Your task to perform on an android device: turn on location history Image 0: 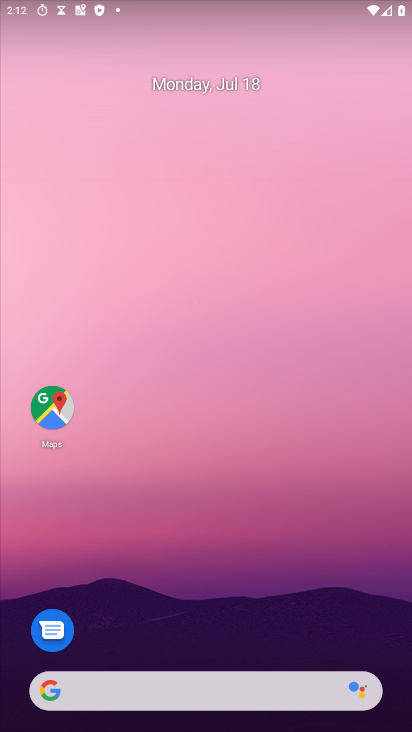
Step 0: drag from (246, 688) to (300, 116)
Your task to perform on an android device: turn on location history Image 1: 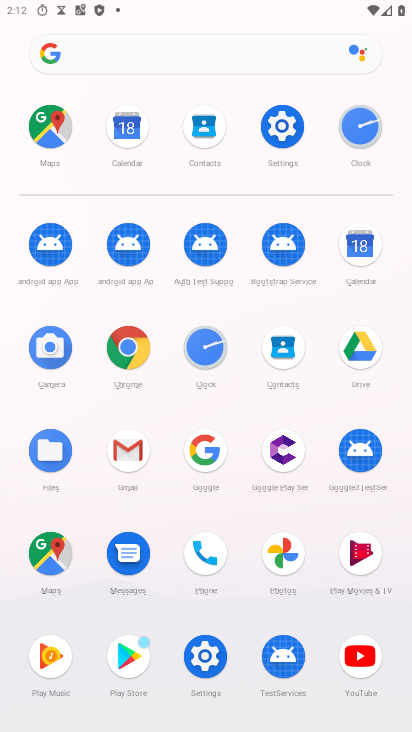
Step 1: click (277, 128)
Your task to perform on an android device: turn on location history Image 2: 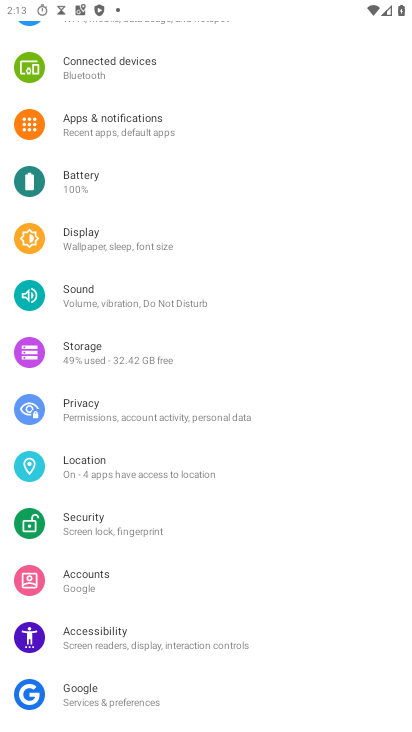
Step 2: click (90, 468)
Your task to perform on an android device: turn on location history Image 3: 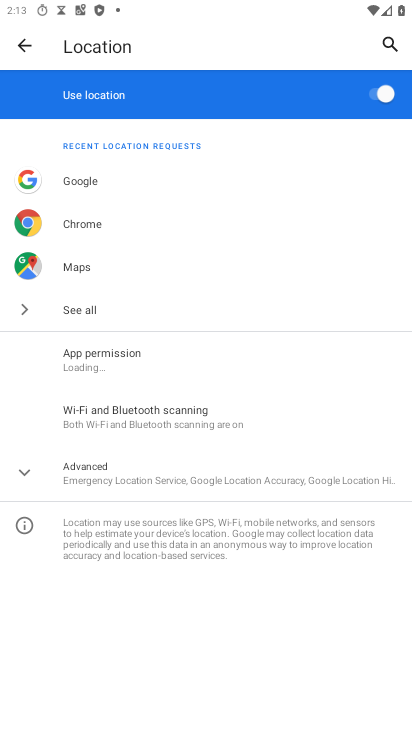
Step 3: click (162, 485)
Your task to perform on an android device: turn on location history Image 4: 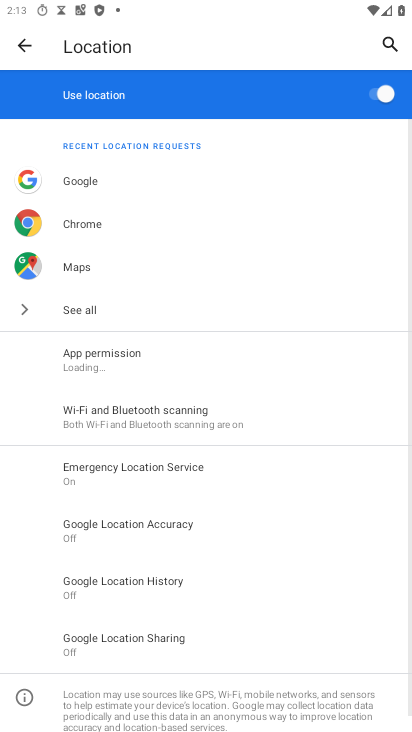
Step 4: click (163, 580)
Your task to perform on an android device: turn on location history Image 5: 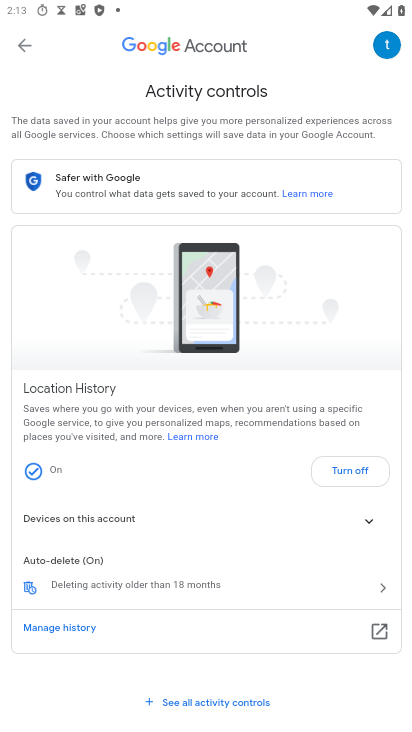
Step 5: task complete